Your task to perform on an android device: Open Google Chrome Image 0: 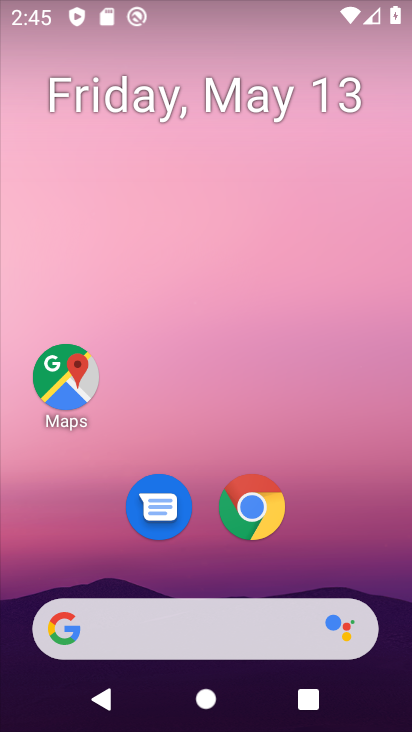
Step 0: click (256, 508)
Your task to perform on an android device: Open Google Chrome Image 1: 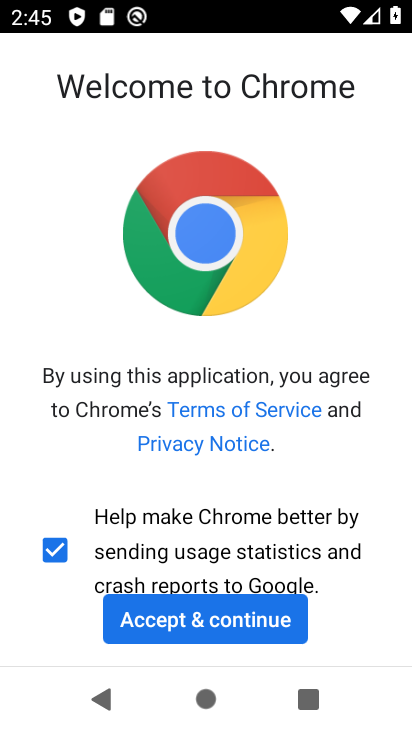
Step 1: click (160, 620)
Your task to perform on an android device: Open Google Chrome Image 2: 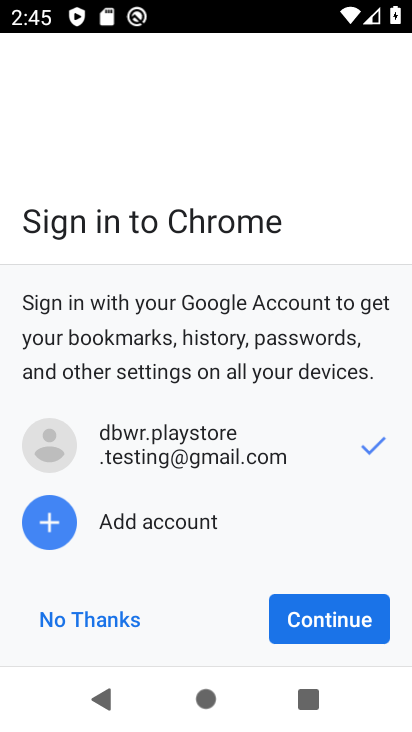
Step 2: click (338, 614)
Your task to perform on an android device: Open Google Chrome Image 3: 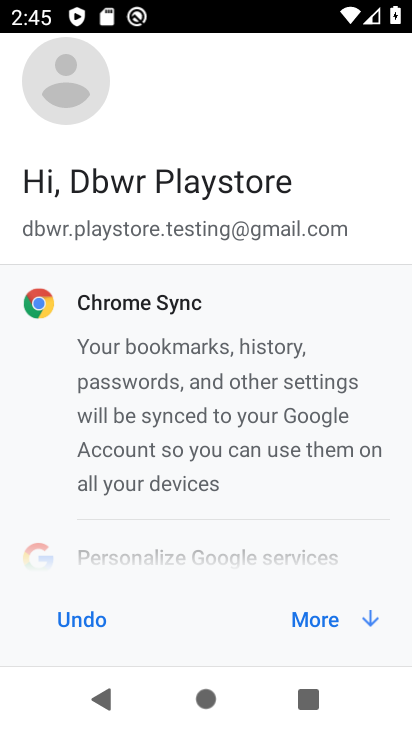
Step 3: click (311, 616)
Your task to perform on an android device: Open Google Chrome Image 4: 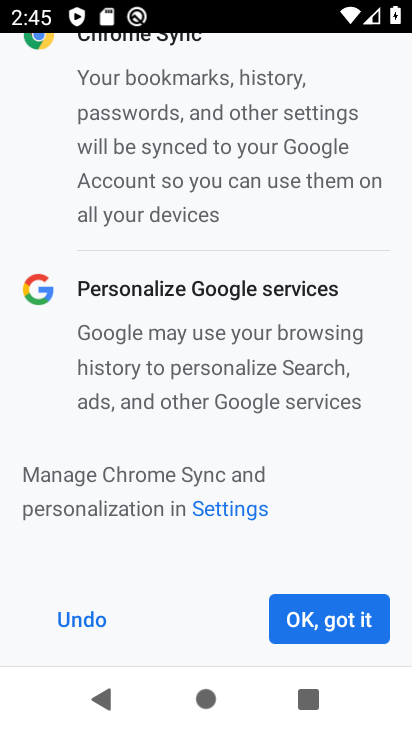
Step 4: click (312, 616)
Your task to perform on an android device: Open Google Chrome Image 5: 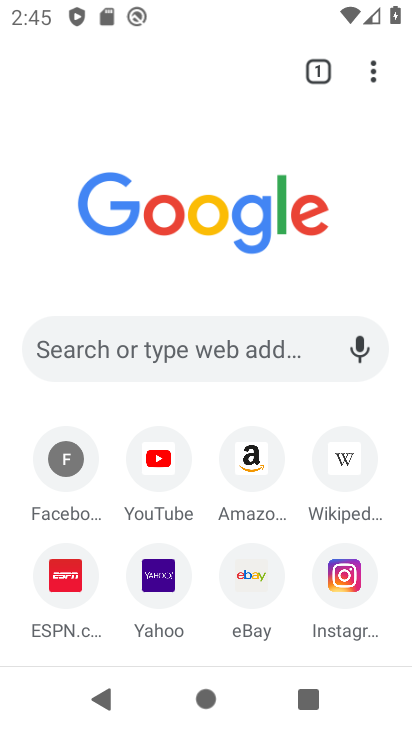
Step 5: task complete